Your task to perform on an android device: Go to Reddit.com Image 0: 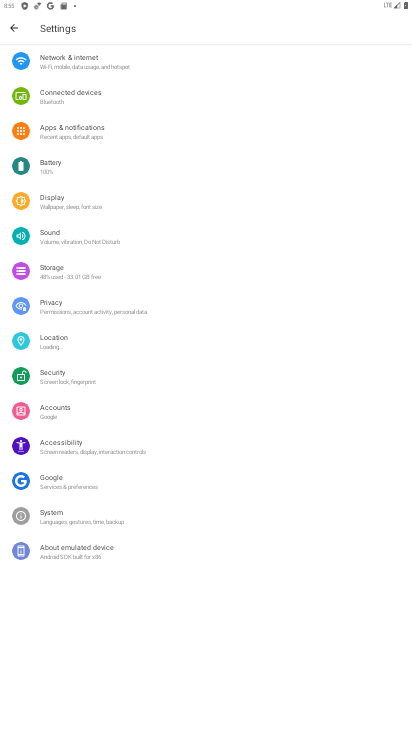
Step 0: press home button
Your task to perform on an android device: Go to Reddit.com Image 1: 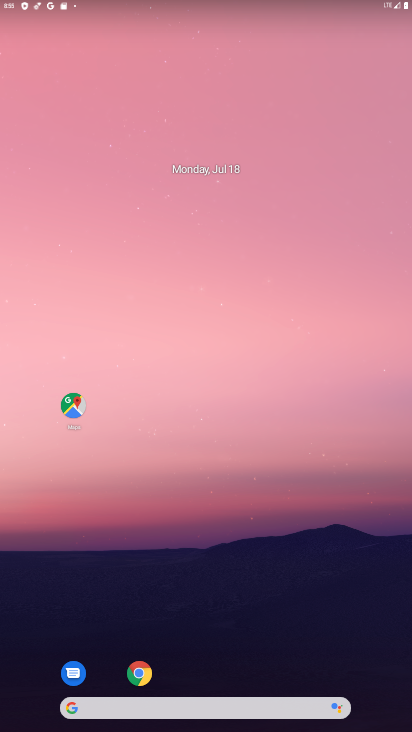
Step 1: drag from (233, 650) to (238, 102)
Your task to perform on an android device: Go to Reddit.com Image 2: 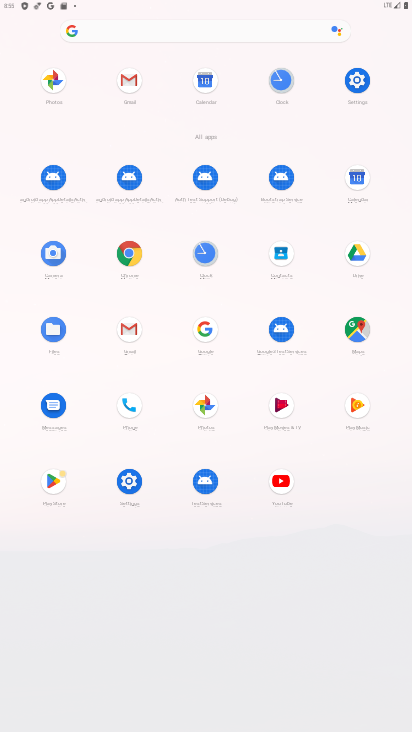
Step 2: click (205, 328)
Your task to perform on an android device: Go to Reddit.com Image 3: 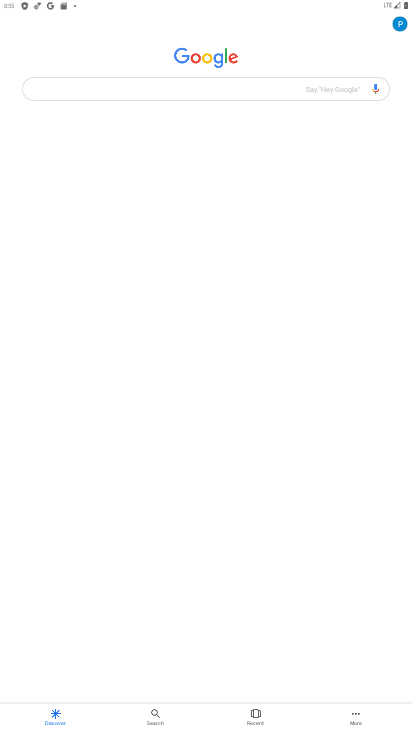
Step 3: click (176, 94)
Your task to perform on an android device: Go to Reddit.com Image 4: 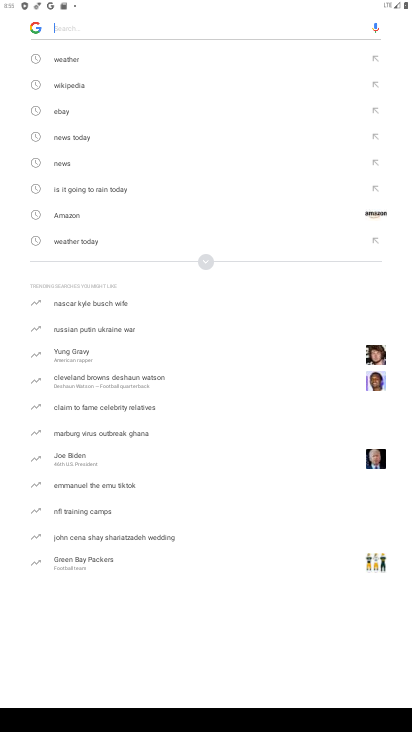
Step 4: type "reddit.com"
Your task to perform on an android device: Go to Reddit.com Image 5: 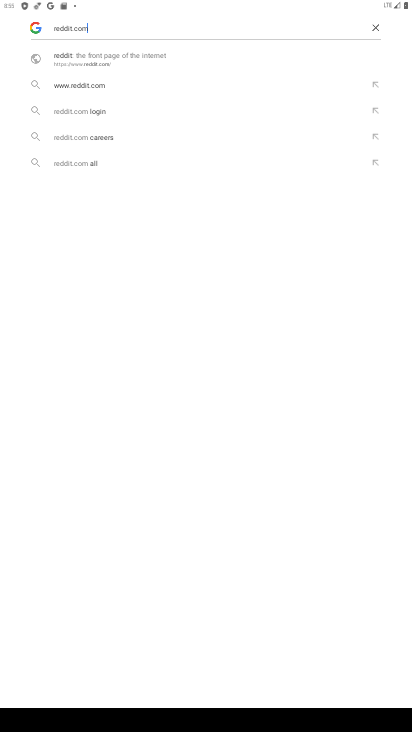
Step 5: click (157, 59)
Your task to perform on an android device: Go to Reddit.com Image 6: 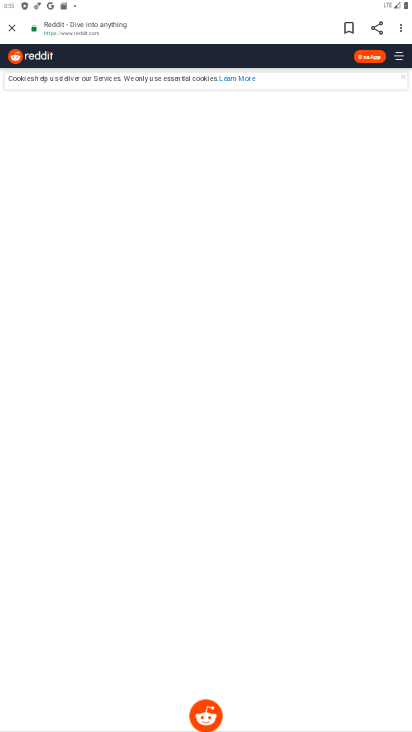
Step 6: task complete